Your task to perform on an android device: Open Google Chrome and click the shortcut for Amazon.com Image 0: 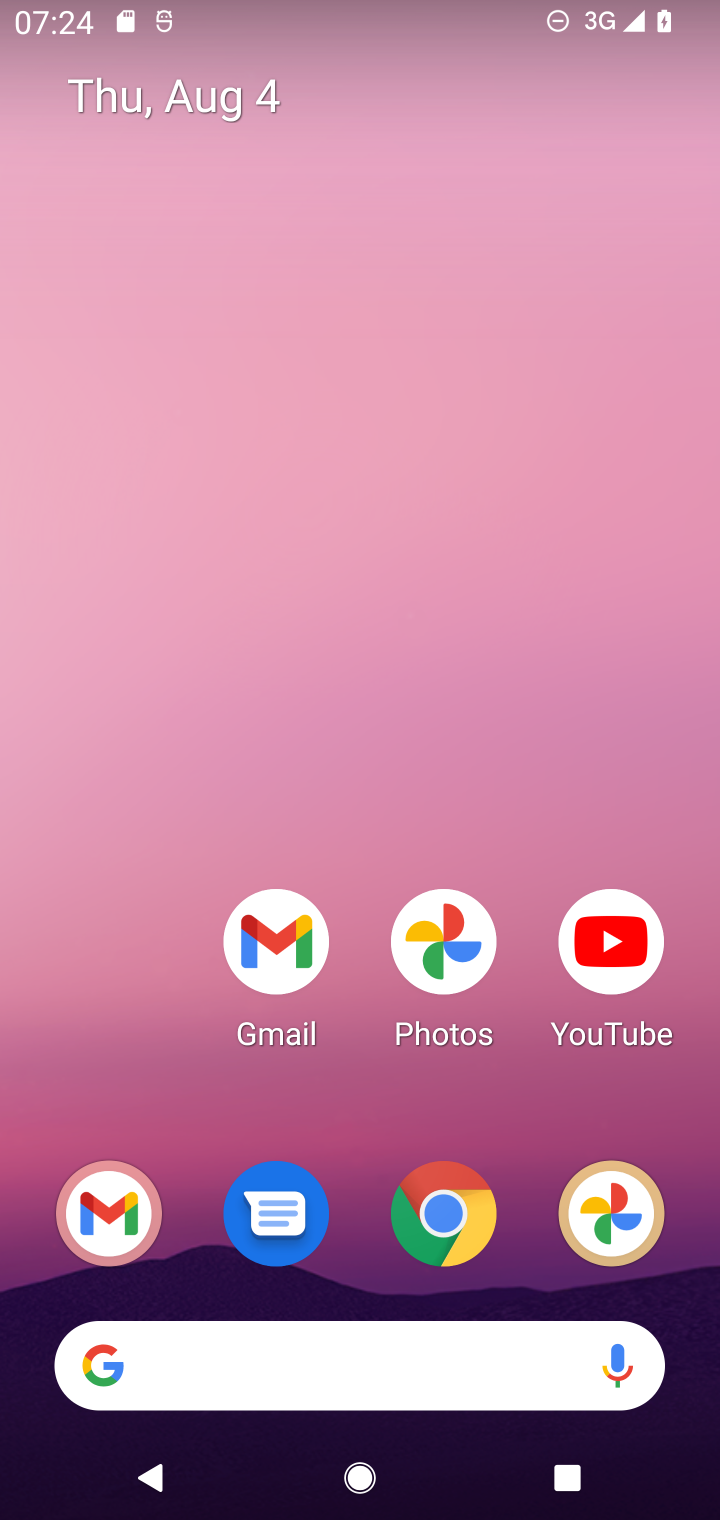
Step 0: press home button
Your task to perform on an android device: Open Google Chrome and click the shortcut for Amazon.com Image 1: 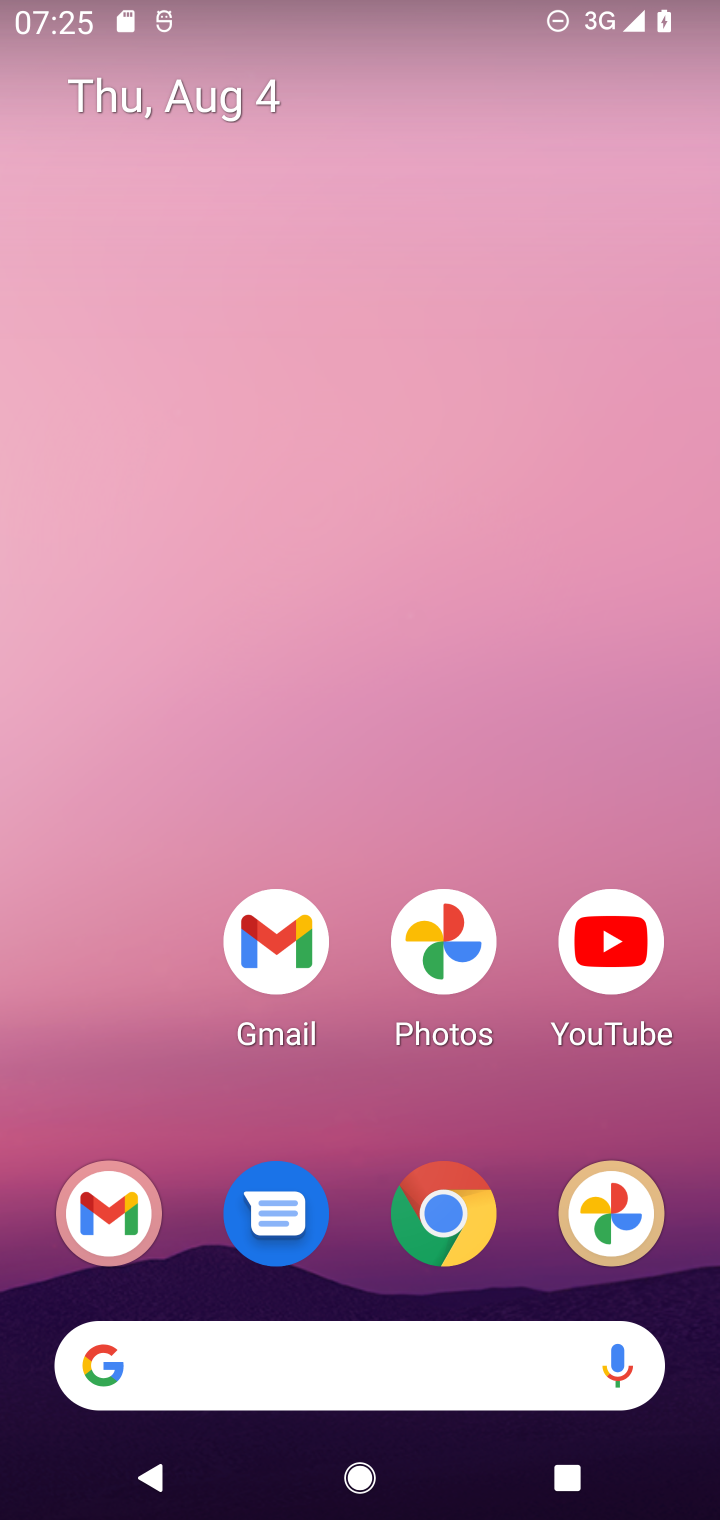
Step 1: drag from (165, 1092) to (123, 461)
Your task to perform on an android device: Open Google Chrome and click the shortcut for Amazon.com Image 2: 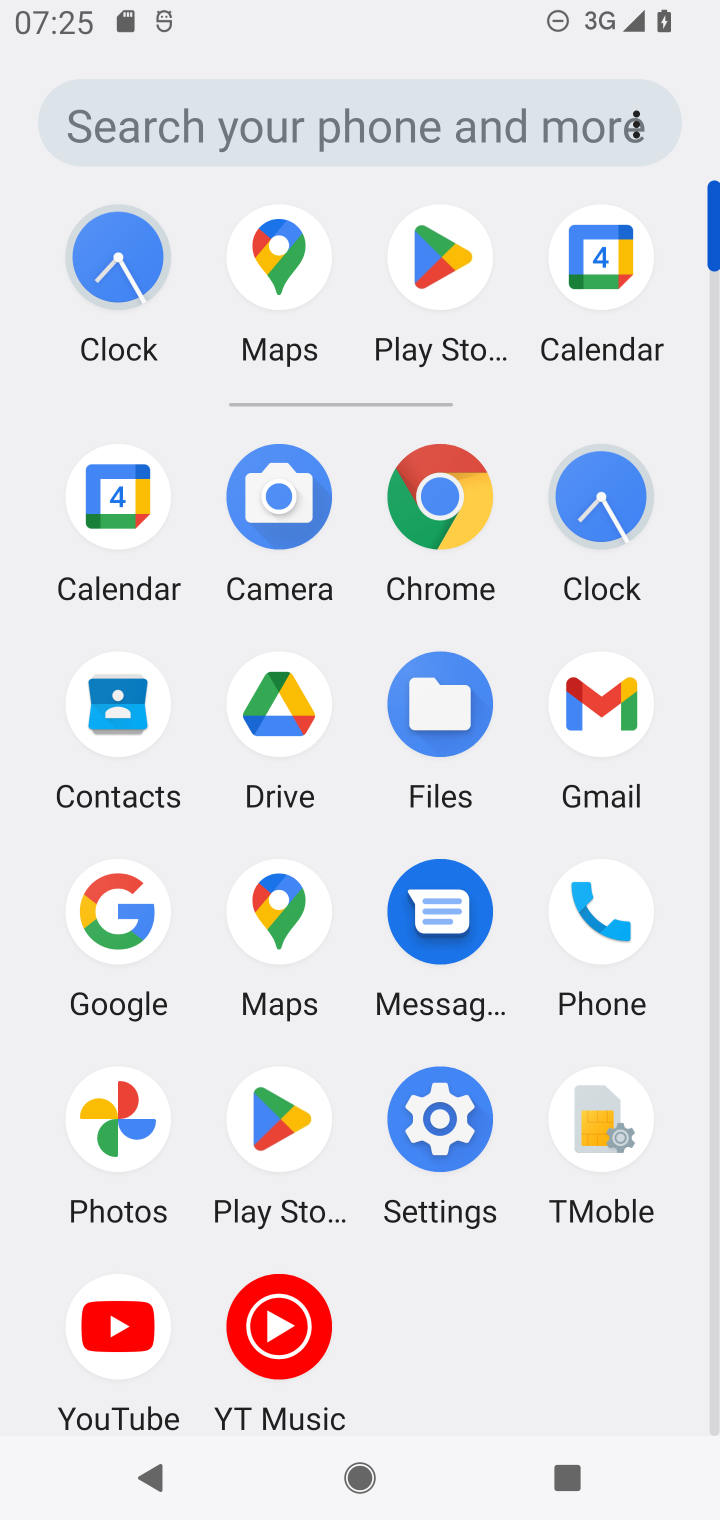
Step 2: click (445, 489)
Your task to perform on an android device: Open Google Chrome and click the shortcut for Amazon.com Image 3: 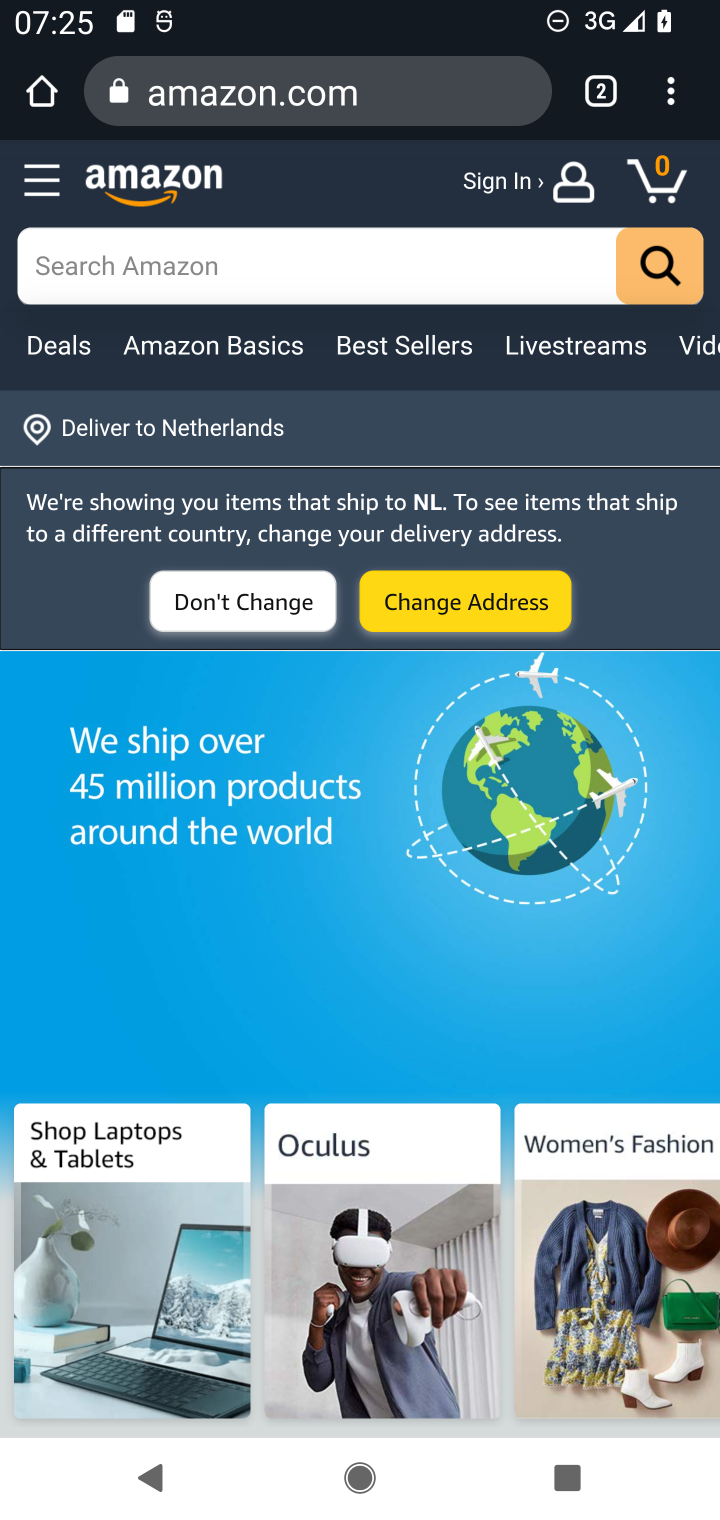
Step 3: task complete